Your task to perform on an android device: check the backup settings in the google photos Image 0: 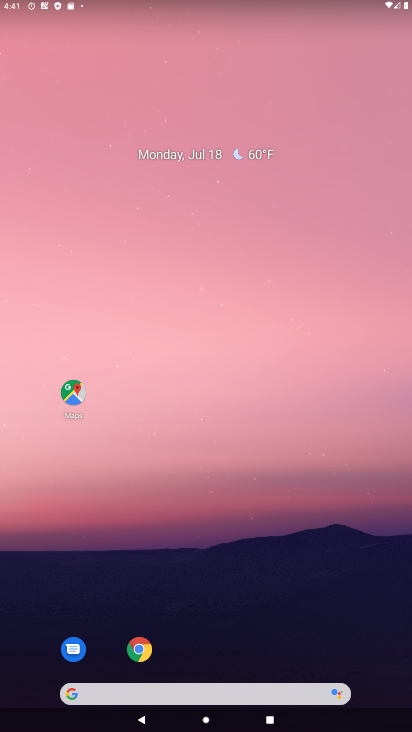
Step 0: drag from (199, 588) to (270, 7)
Your task to perform on an android device: check the backup settings in the google photos Image 1: 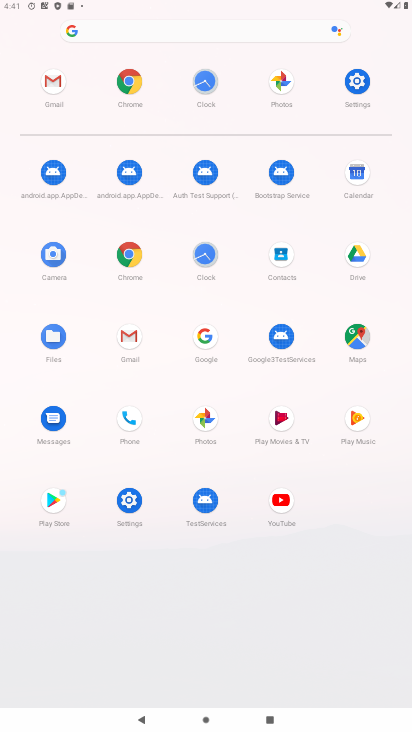
Step 1: click (209, 417)
Your task to perform on an android device: check the backup settings in the google photos Image 2: 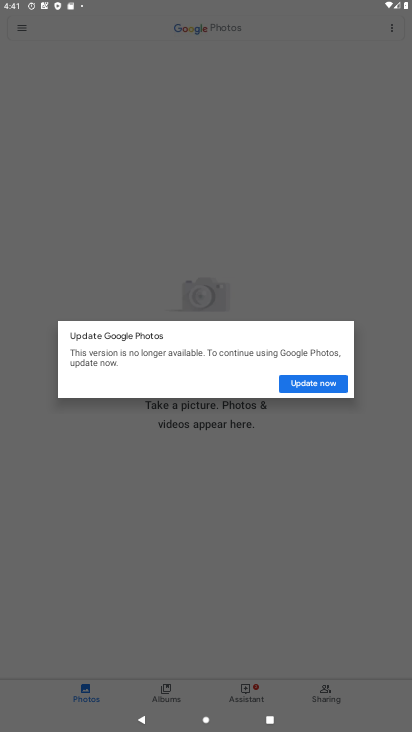
Step 2: click (332, 387)
Your task to perform on an android device: check the backup settings in the google photos Image 3: 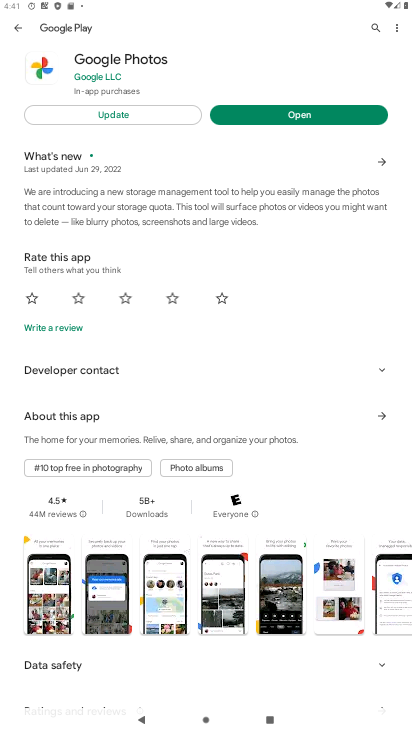
Step 3: click (288, 114)
Your task to perform on an android device: check the backup settings in the google photos Image 4: 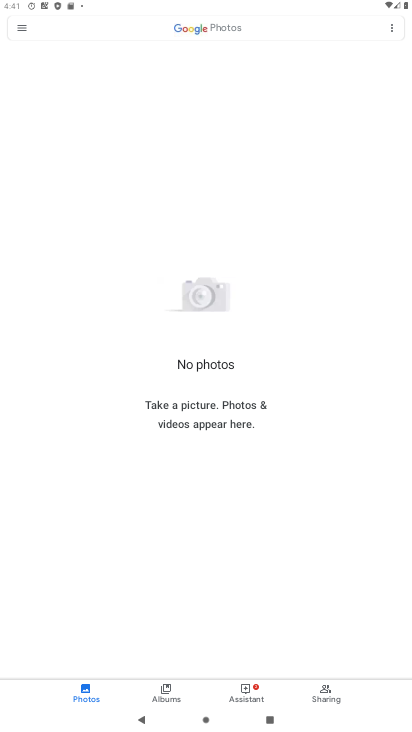
Step 4: click (18, 29)
Your task to perform on an android device: check the backup settings in the google photos Image 5: 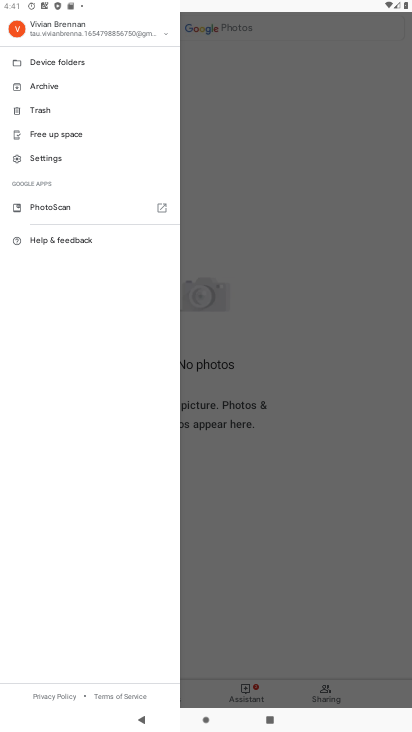
Step 5: click (54, 159)
Your task to perform on an android device: check the backup settings in the google photos Image 6: 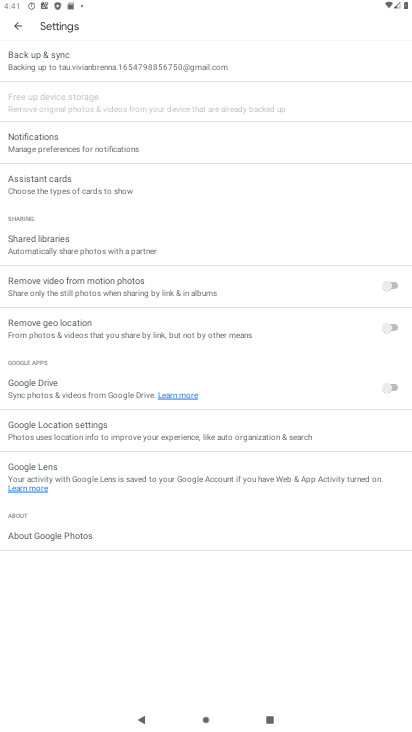
Step 6: click (110, 59)
Your task to perform on an android device: check the backup settings in the google photos Image 7: 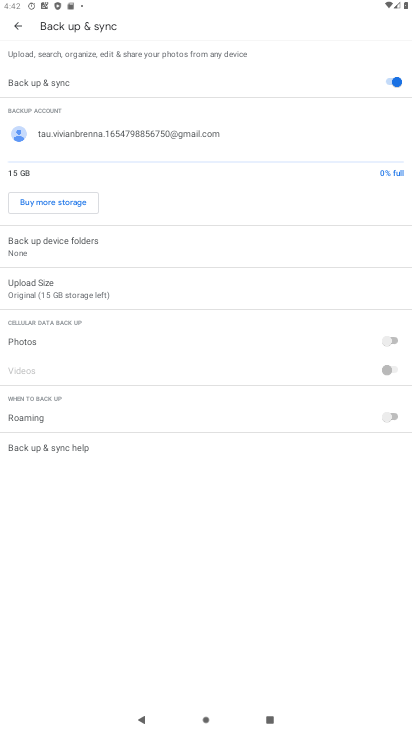
Step 7: task complete